Your task to perform on an android device: Open Google Chrome Image 0: 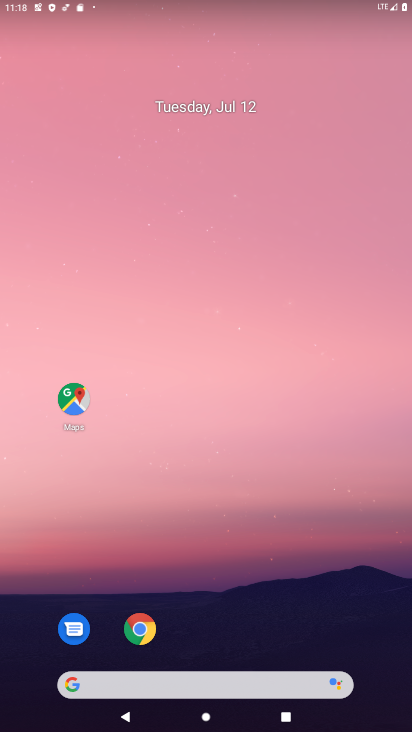
Step 0: press home button
Your task to perform on an android device: Open Google Chrome Image 1: 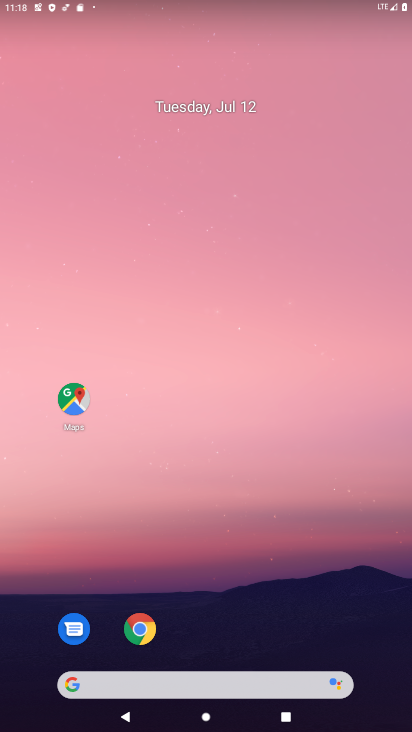
Step 1: click (138, 623)
Your task to perform on an android device: Open Google Chrome Image 2: 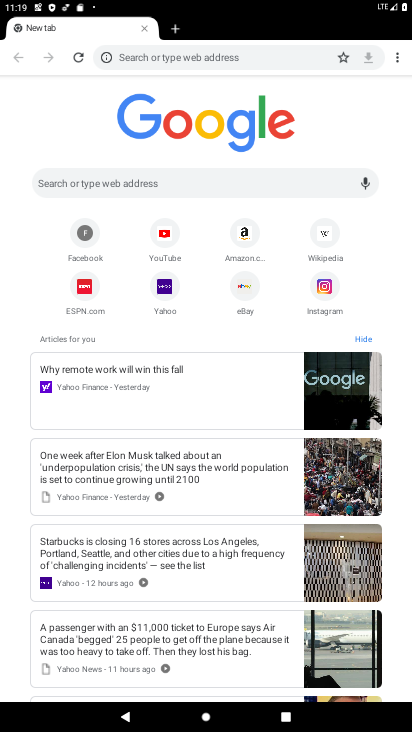
Step 2: task complete